Your task to perform on an android device: turn off improve location accuracy Image 0: 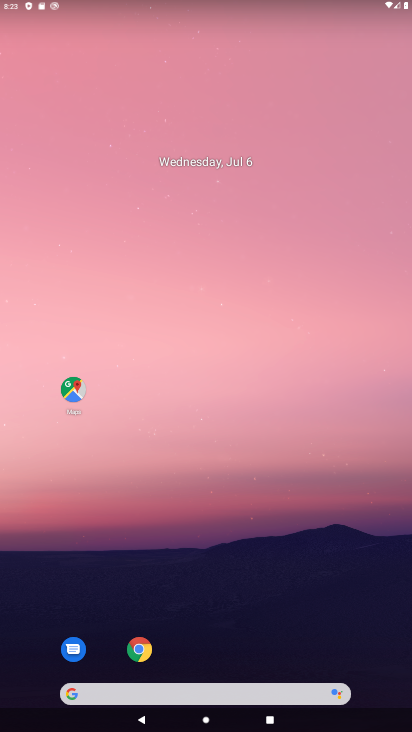
Step 0: click (197, 59)
Your task to perform on an android device: turn off improve location accuracy Image 1: 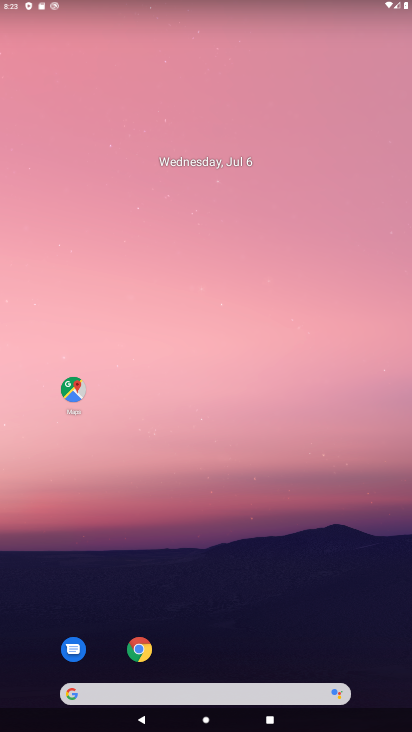
Step 1: drag from (248, 620) to (184, 44)
Your task to perform on an android device: turn off improve location accuracy Image 2: 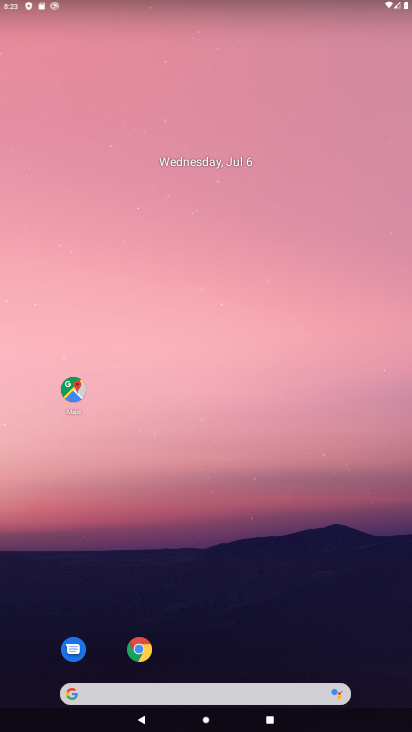
Step 2: drag from (226, 647) to (141, 84)
Your task to perform on an android device: turn off improve location accuracy Image 3: 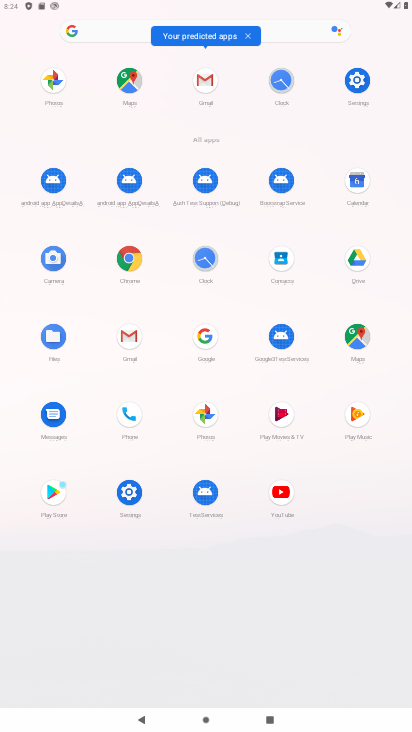
Step 3: click (358, 83)
Your task to perform on an android device: turn off improve location accuracy Image 4: 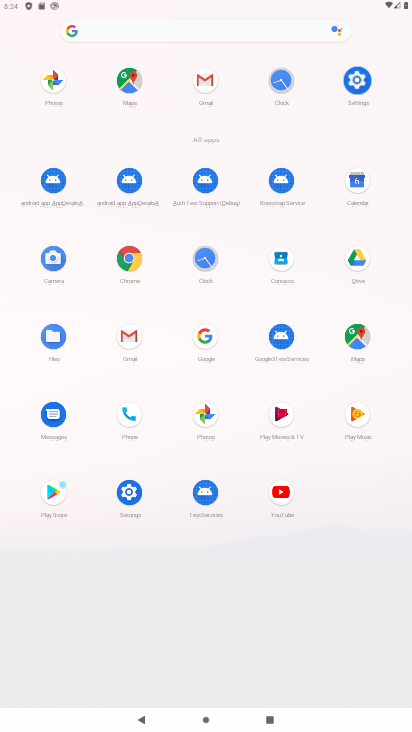
Step 4: click (355, 82)
Your task to perform on an android device: turn off improve location accuracy Image 5: 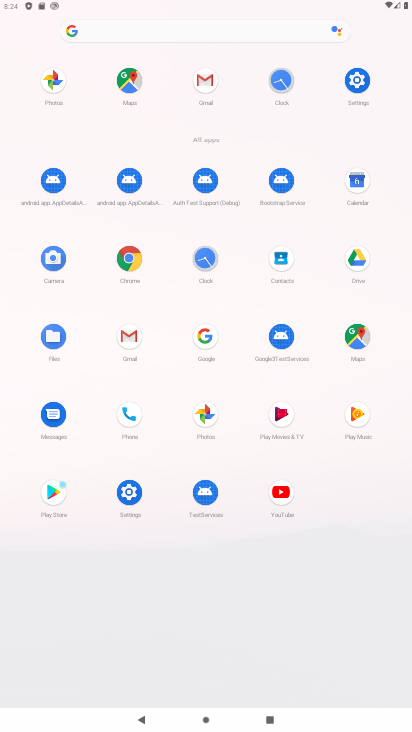
Step 5: click (354, 77)
Your task to perform on an android device: turn off improve location accuracy Image 6: 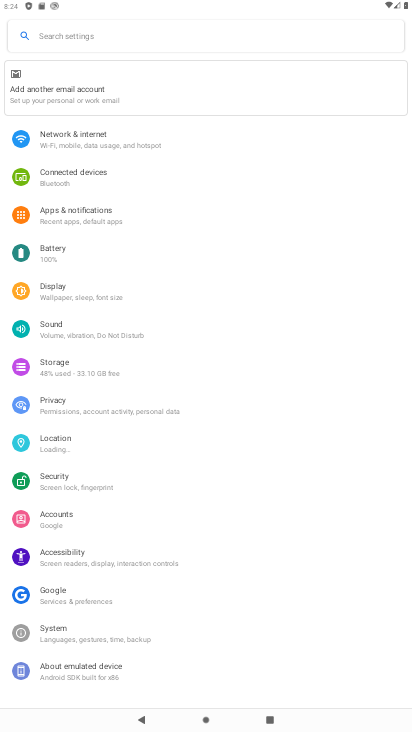
Step 6: click (52, 446)
Your task to perform on an android device: turn off improve location accuracy Image 7: 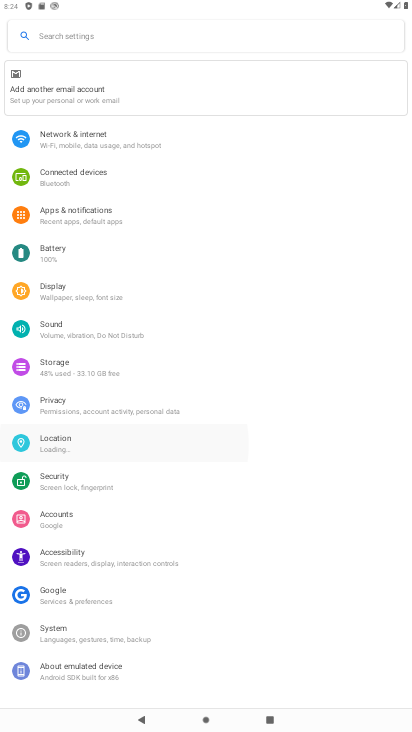
Step 7: click (53, 445)
Your task to perform on an android device: turn off improve location accuracy Image 8: 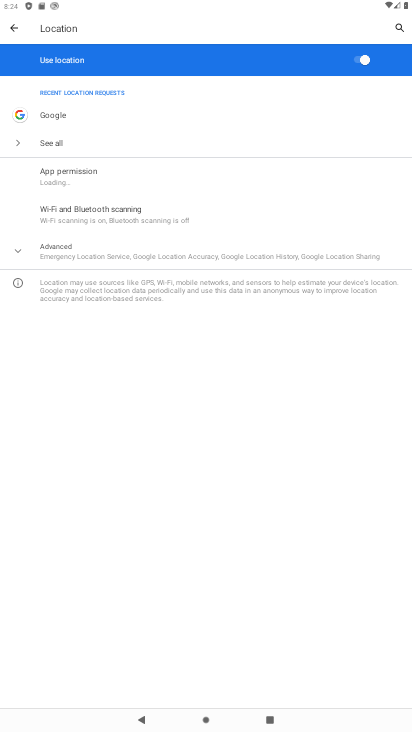
Step 8: click (53, 255)
Your task to perform on an android device: turn off improve location accuracy Image 9: 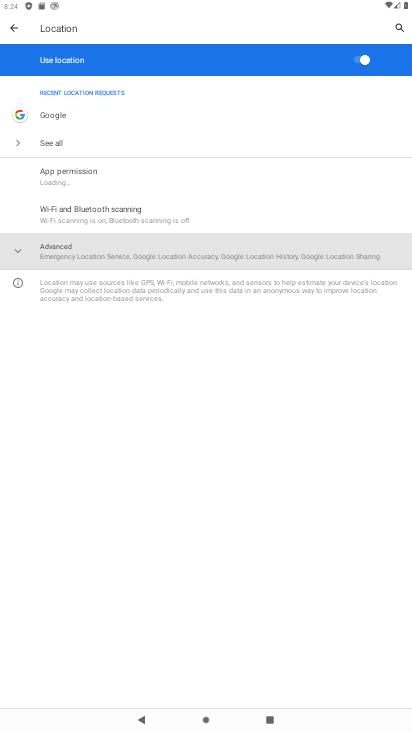
Step 9: click (54, 257)
Your task to perform on an android device: turn off improve location accuracy Image 10: 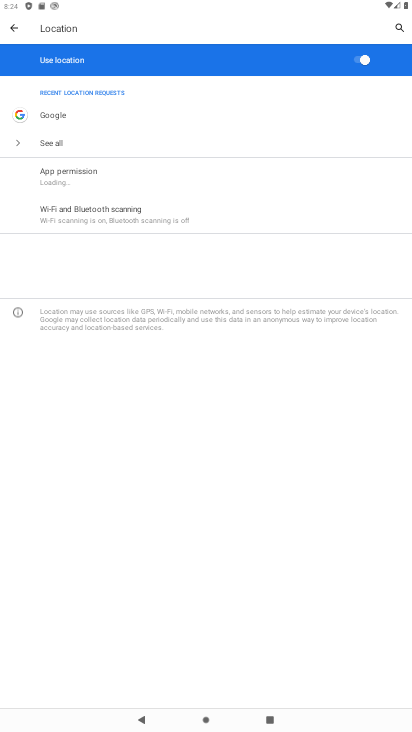
Step 10: click (56, 257)
Your task to perform on an android device: turn off improve location accuracy Image 11: 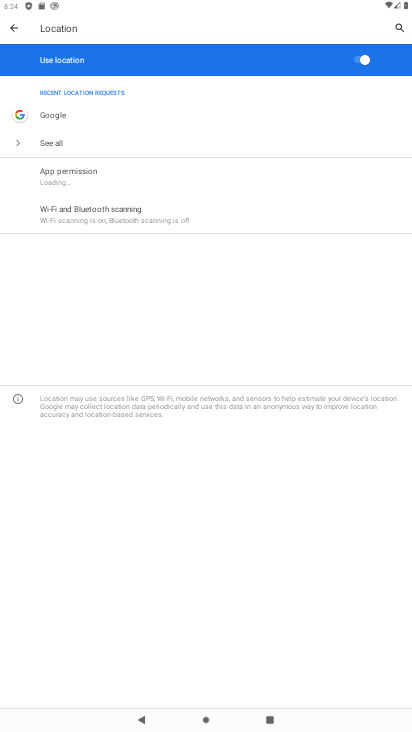
Step 11: click (57, 258)
Your task to perform on an android device: turn off improve location accuracy Image 12: 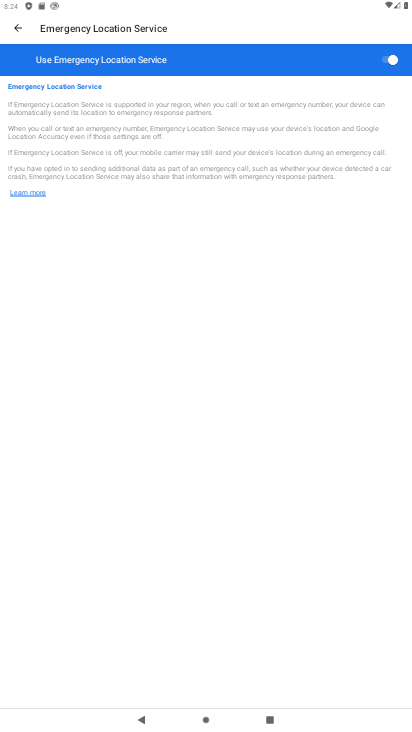
Step 12: click (15, 24)
Your task to perform on an android device: turn off improve location accuracy Image 13: 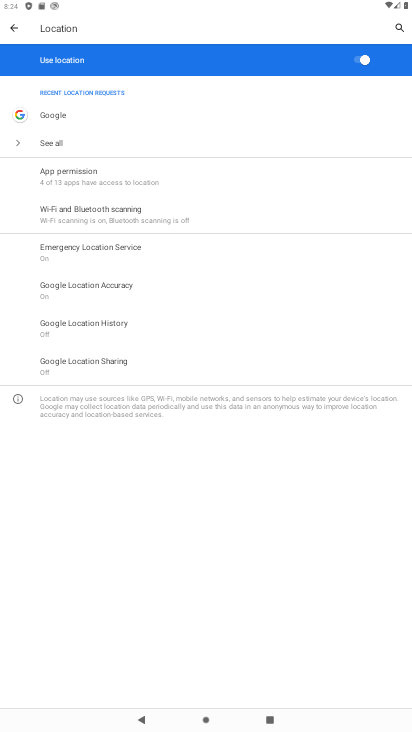
Step 13: click (115, 290)
Your task to perform on an android device: turn off improve location accuracy Image 14: 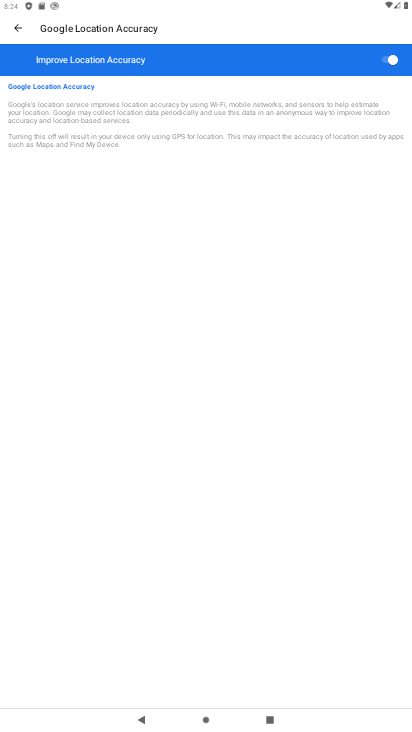
Step 14: click (392, 53)
Your task to perform on an android device: turn off improve location accuracy Image 15: 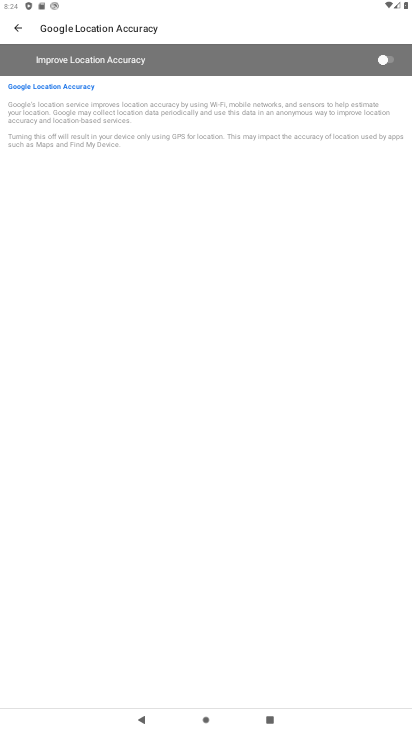
Step 15: press back button
Your task to perform on an android device: turn off improve location accuracy Image 16: 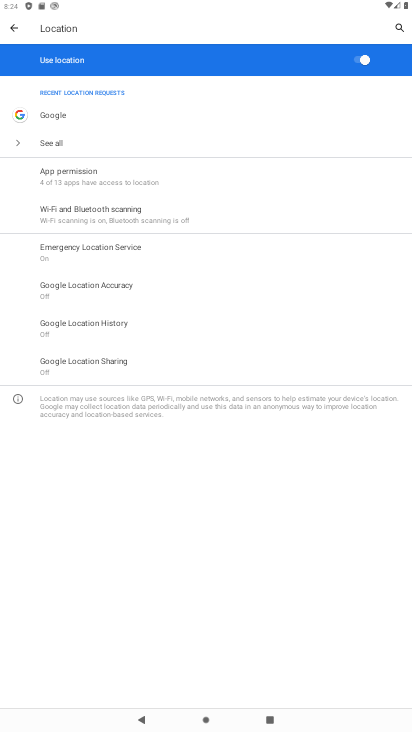
Step 16: press home button
Your task to perform on an android device: turn off improve location accuracy Image 17: 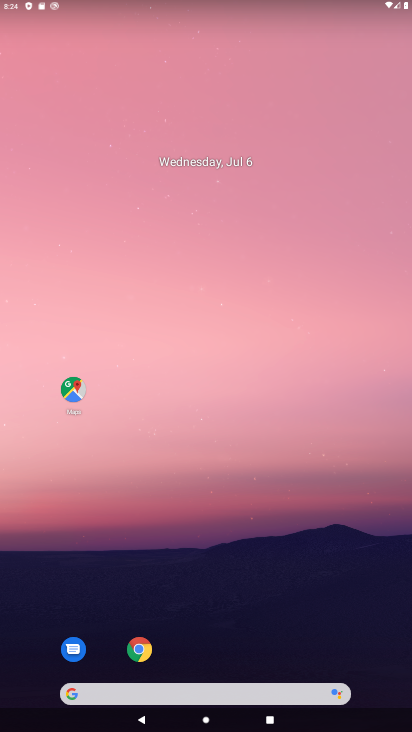
Step 17: drag from (192, 583) to (94, 5)
Your task to perform on an android device: turn off improve location accuracy Image 18: 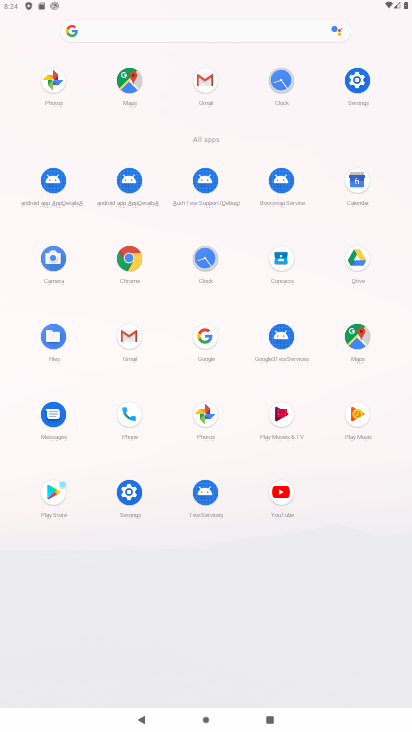
Step 18: click (355, 75)
Your task to perform on an android device: turn off improve location accuracy Image 19: 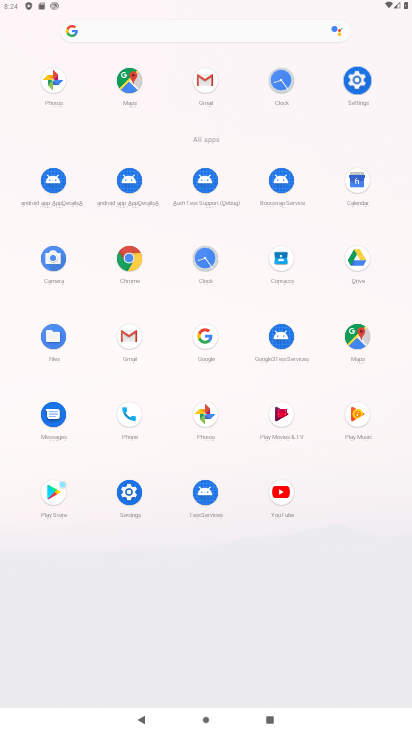
Step 19: click (354, 75)
Your task to perform on an android device: turn off improve location accuracy Image 20: 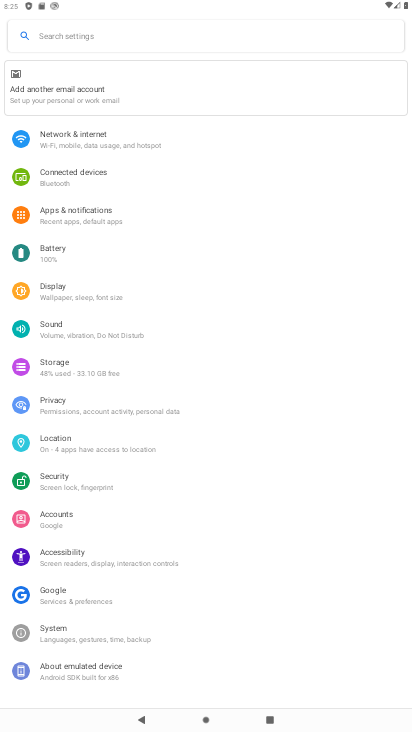
Step 20: click (52, 434)
Your task to perform on an android device: turn off improve location accuracy Image 21: 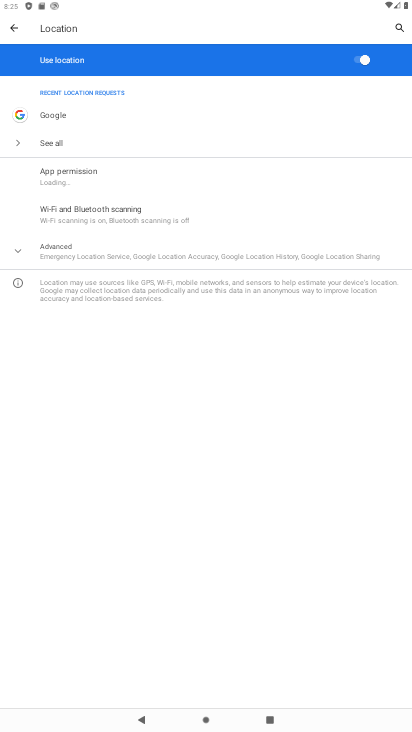
Step 21: click (93, 257)
Your task to perform on an android device: turn off improve location accuracy Image 22: 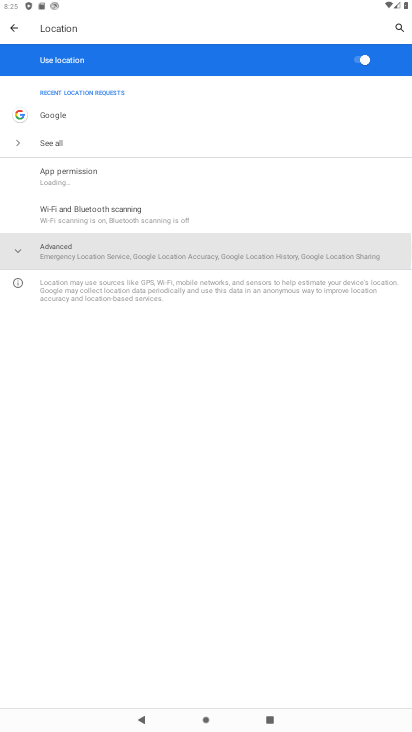
Step 22: click (93, 257)
Your task to perform on an android device: turn off improve location accuracy Image 23: 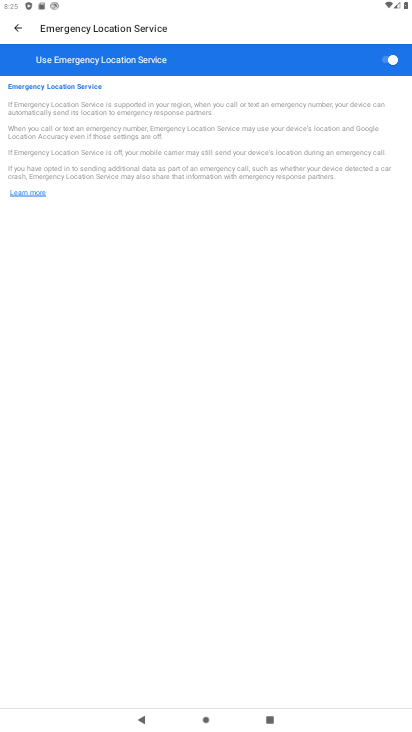
Step 23: click (15, 27)
Your task to perform on an android device: turn off improve location accuracy Image 24: 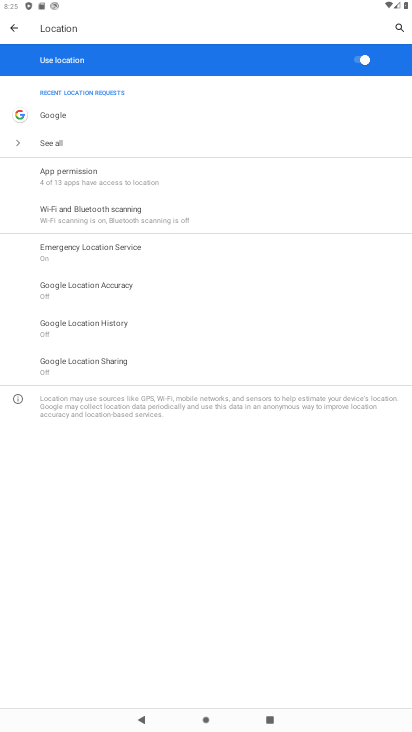
Step 24: click (95, 277)
Your task to perform on an android device: turn off improve location accuracy Image 25: 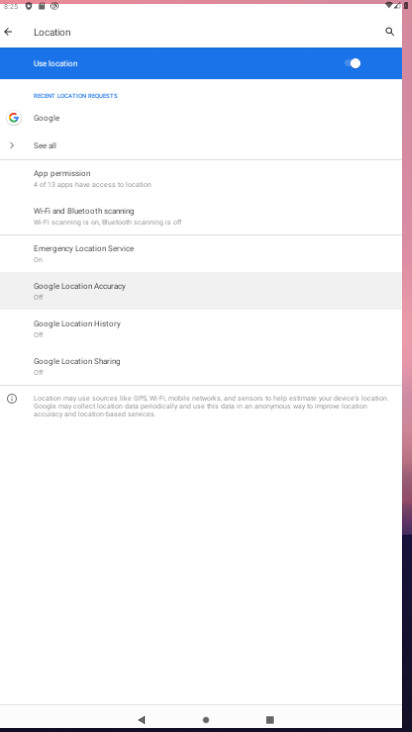
Step 25: click (95, 277)
Your task to perform on an android device: turn off improve location accuracy Image 26: 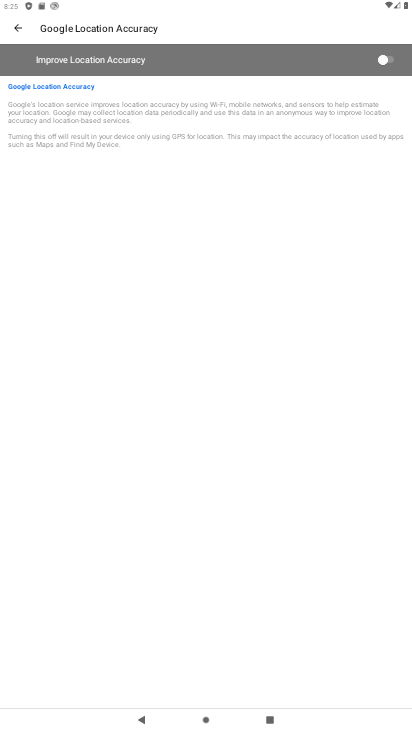
Step 26: click (382, 61)
Your task to perform on an android device: turn off improve location accuracy Image 27: 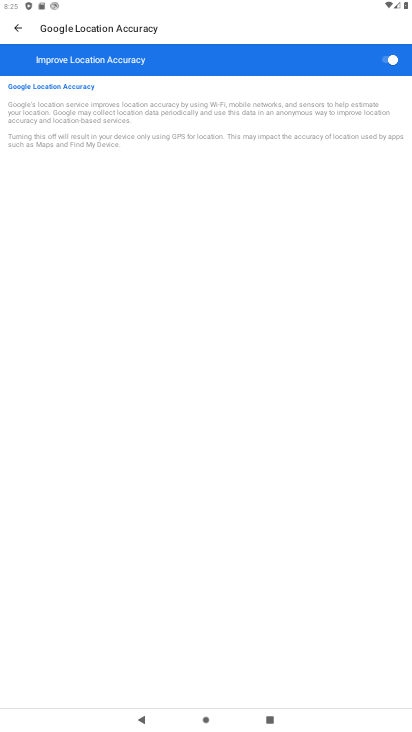
Step 27: task complete